Your task to perform on an android device: check google app version Image 0: 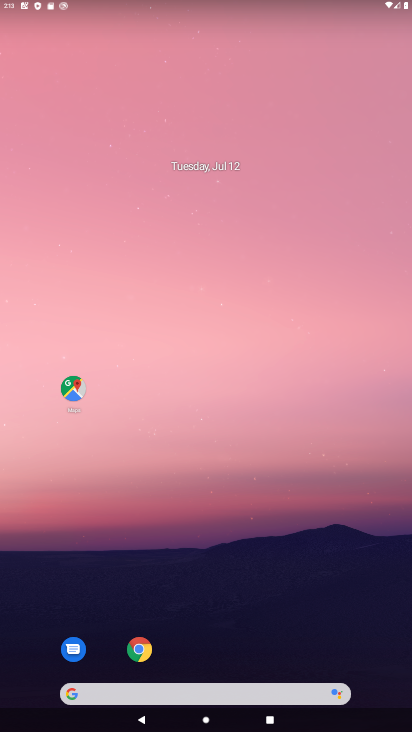
Step 0: click (141, 639)
Your task to perform on an android device: check google app version Image 1: 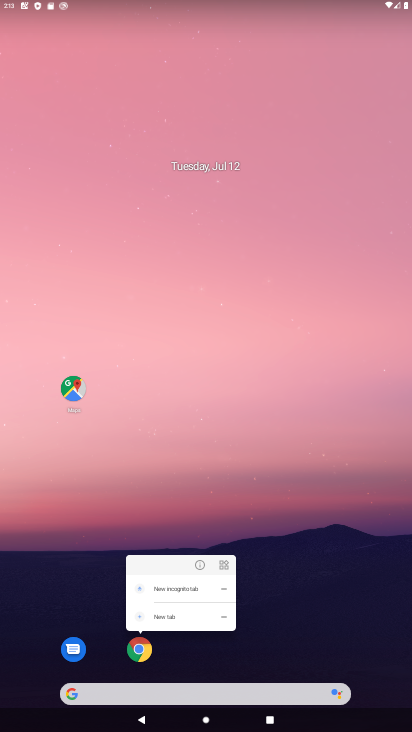
Step 1: click (134, 662)
Your task to perform on an android device: check google app version Image 2: 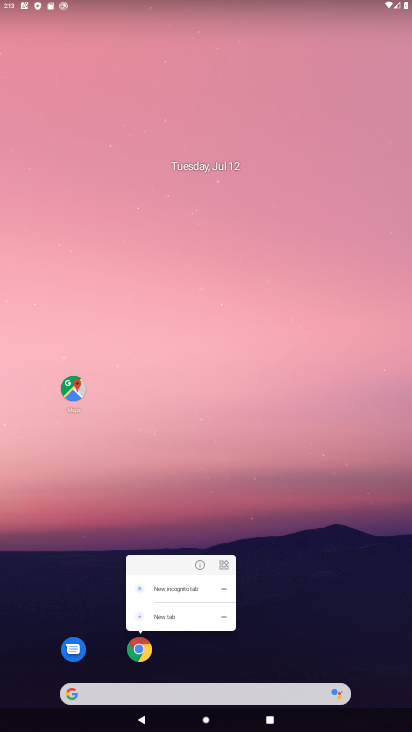
Step 2: click (181, 618)
Your task to perform on an android device: check google app version Image 3: 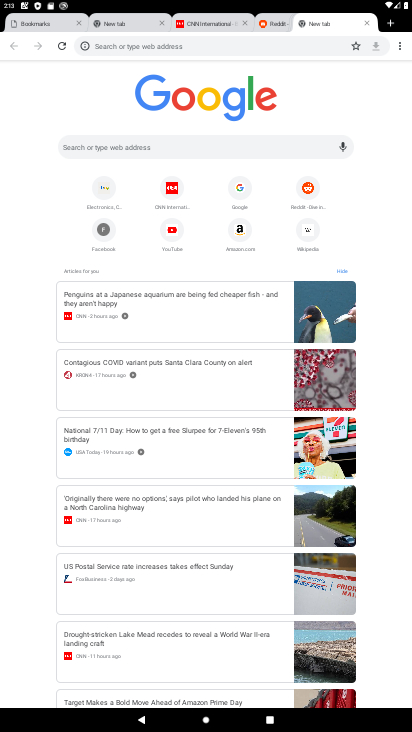
Step 3: click (181, 618)
Your task to perform on an android device: check google app version Image 4: 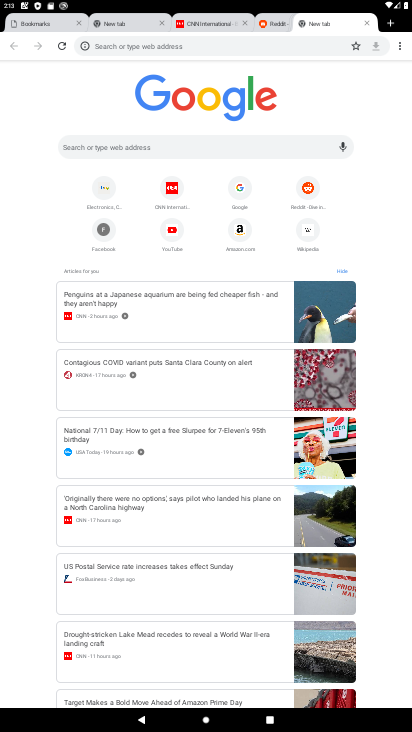
Step 4: task complete